Your task to perform on an android device: turn on sleep mode Image 0: 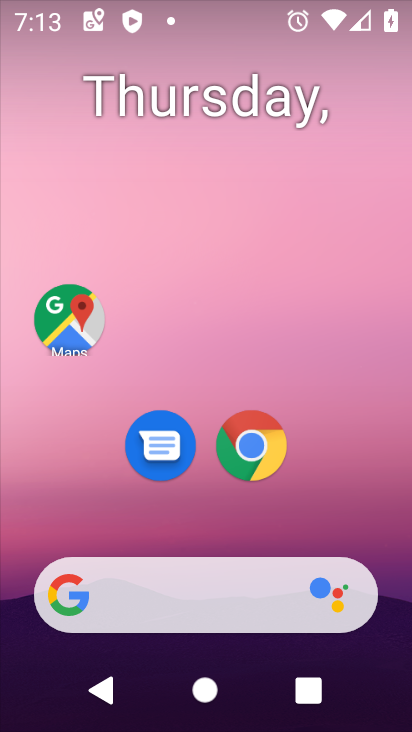
Step 0: drag from (343, 481) to (339, 4)
Your task to perform on an android device: turn on sleep mode Image 1: 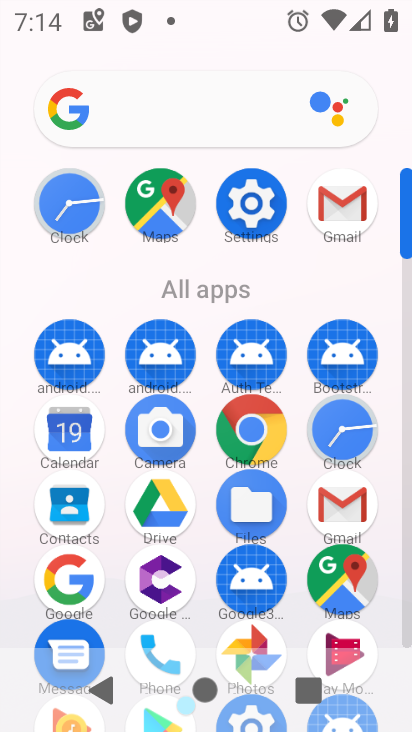
Step 1: click (256, 204)
Your task to perform on an android device: turn on sleep mode Image 2: 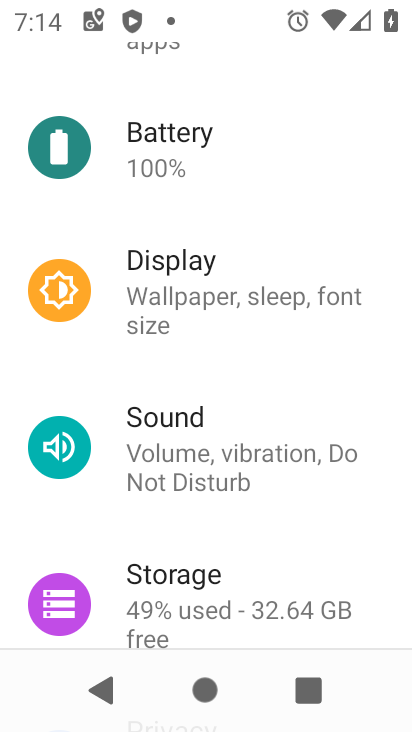
Step 2: click (172, 263)
Your task to perform on an android device: turn on sleep mode Image 3: 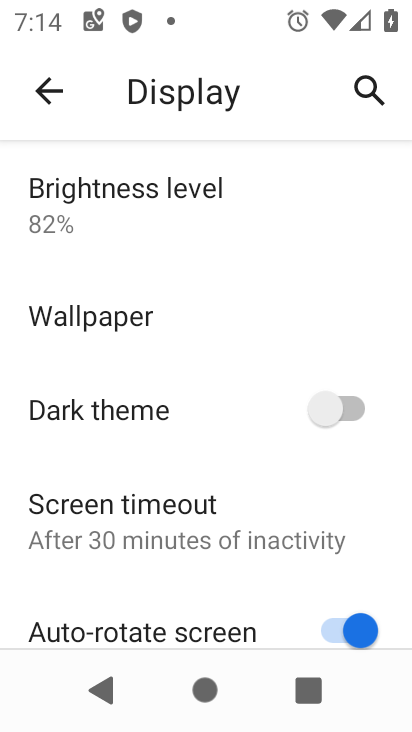
Step 3: task complete